Your task to perform on an android device: Open the Play Movies app and select the watchlist tab. Image 0: 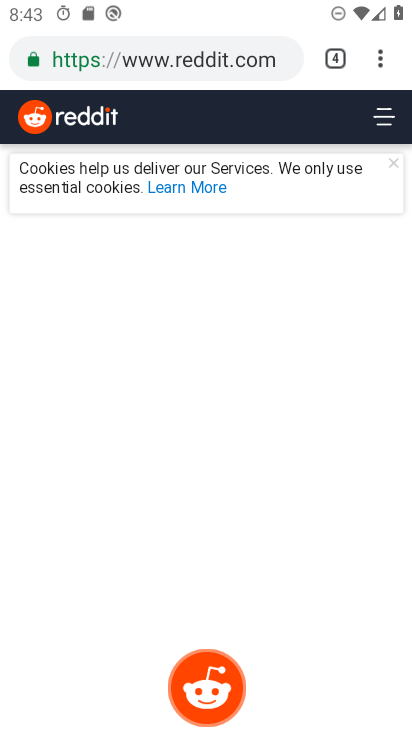
Step 0: press back button
Your task to perform on an android device: Open the Play Movies app and select the watchlist tab. Image 1: 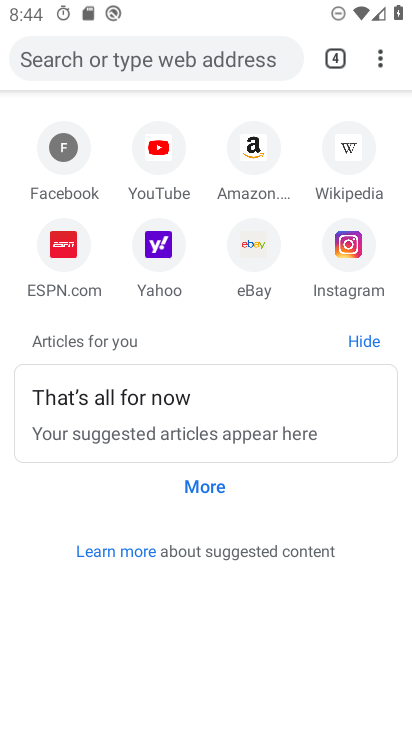
Step 1: press back button
Your task to perform on an android device: Open the Play Movies app and select the watchlist tab. Image 2: 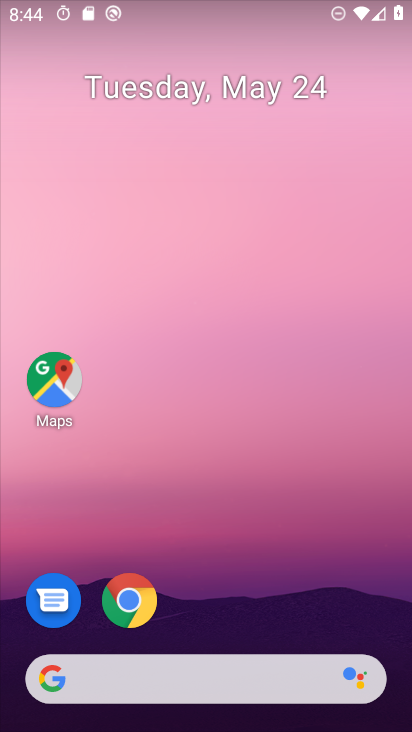
Step 2: drag from (151, 609) to (261, 61)
Your task to perform on an android device: Open the Play Movies app and select the watchlist tab. Image 3: 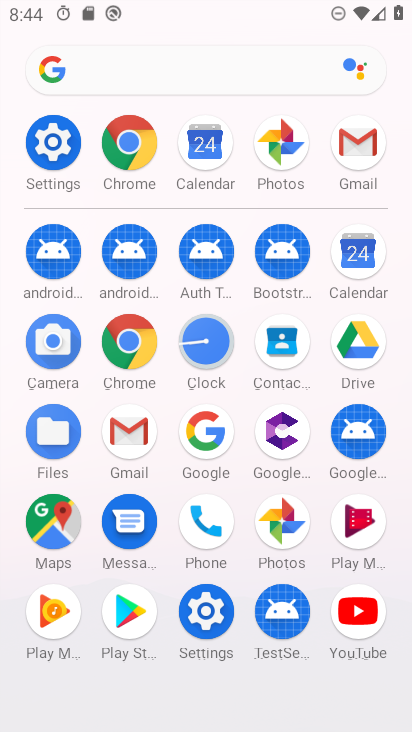
Step 3: click (364, 532)
Your task to perform on an android device: Open the Play Movies app and select the watchlist tab. Image 4: 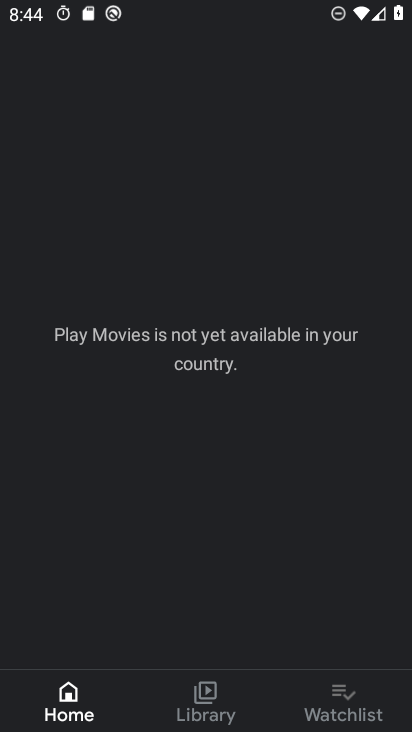
Step 4: click (359, 712)
Your task to perform on an android device: Open the Play Movies app and select the watchlist tab. Image 5: 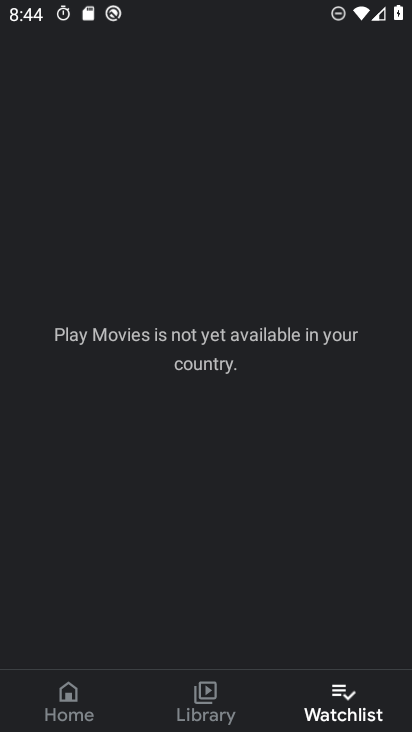
Step 5: task complete